Your task to perform on an android device: turn off location history Image 0: 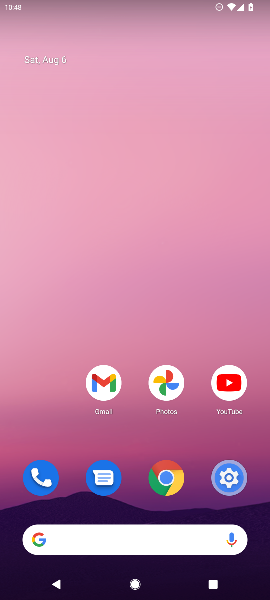
Step 0: drag from (136, 514) to (126, 146)
Your task to perform on an android device: turn off location history Image 1: 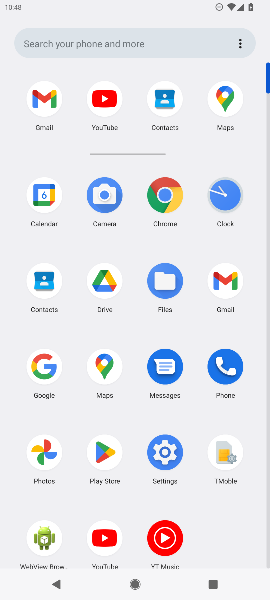
Step 1: click (164, 447)
Your task to perform on an android device: turn off location history Image 2: 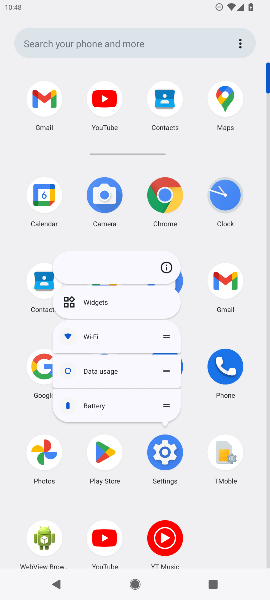
Step 2: click (156, 450)
Your task to perform on an android device: turn off location history Image 3: 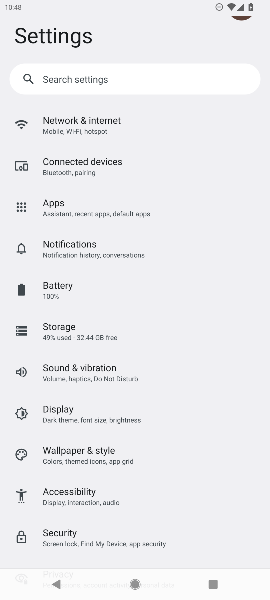
Step 3: drag from (69, 473) to (62, 235)
Your task to perform on an android device: turn off location history Image 4: 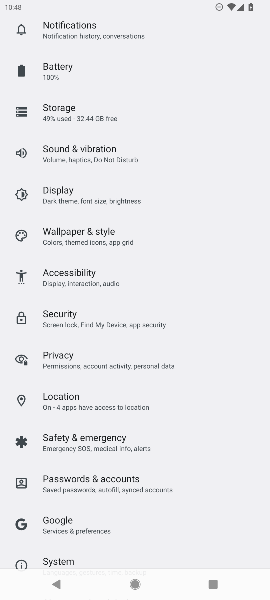
Step 4: click (59, 390)
Your task to perform on an android device: turn off location history Image 5: 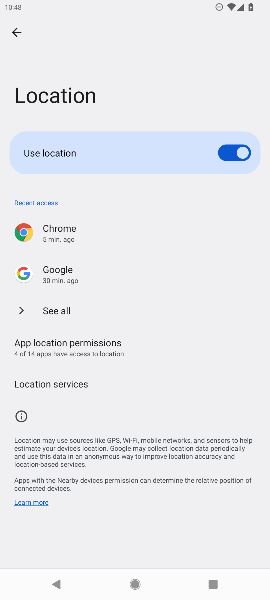
Step 5: task complete